Your task to perform on an android device: Open the map Image 0: 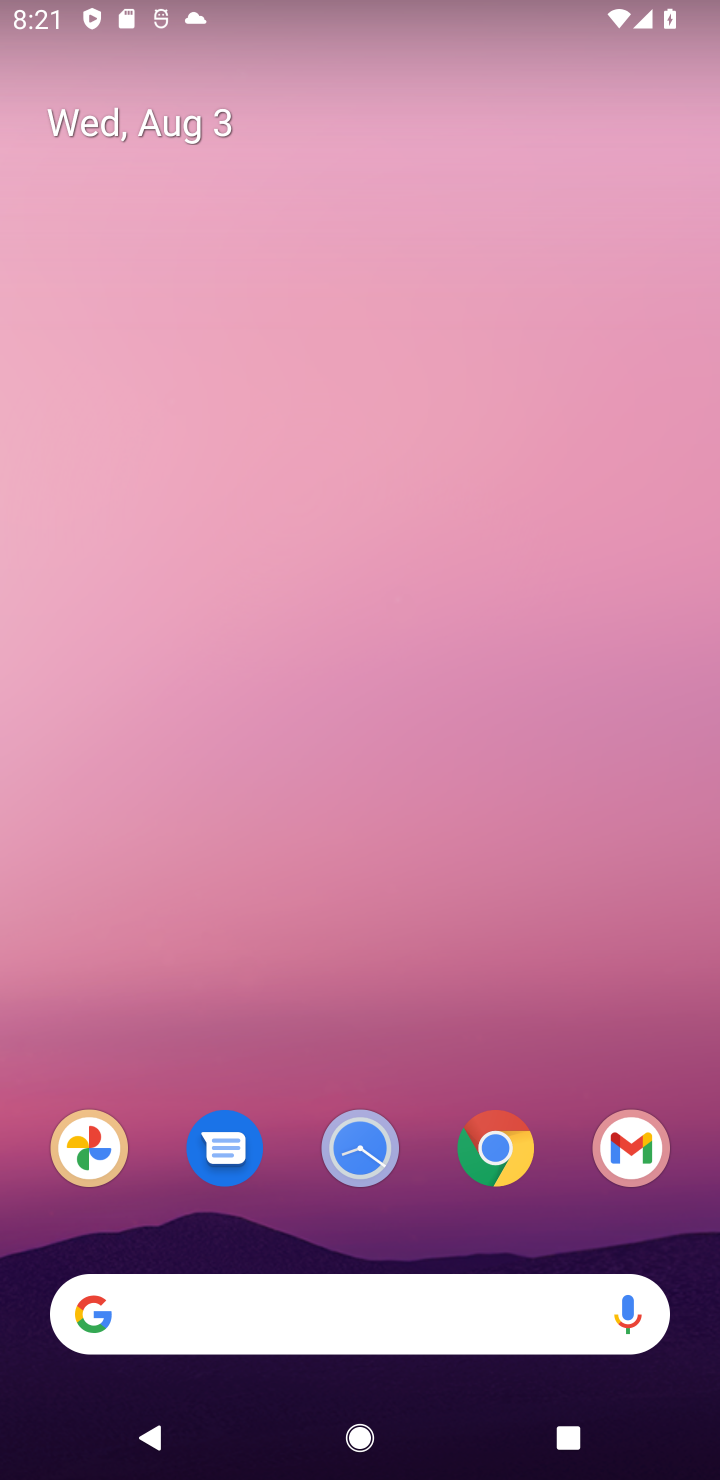
Step 0: drag from (408, 1007) to (479, 230)
Your task to perform on an android device: Open the map Image 1: 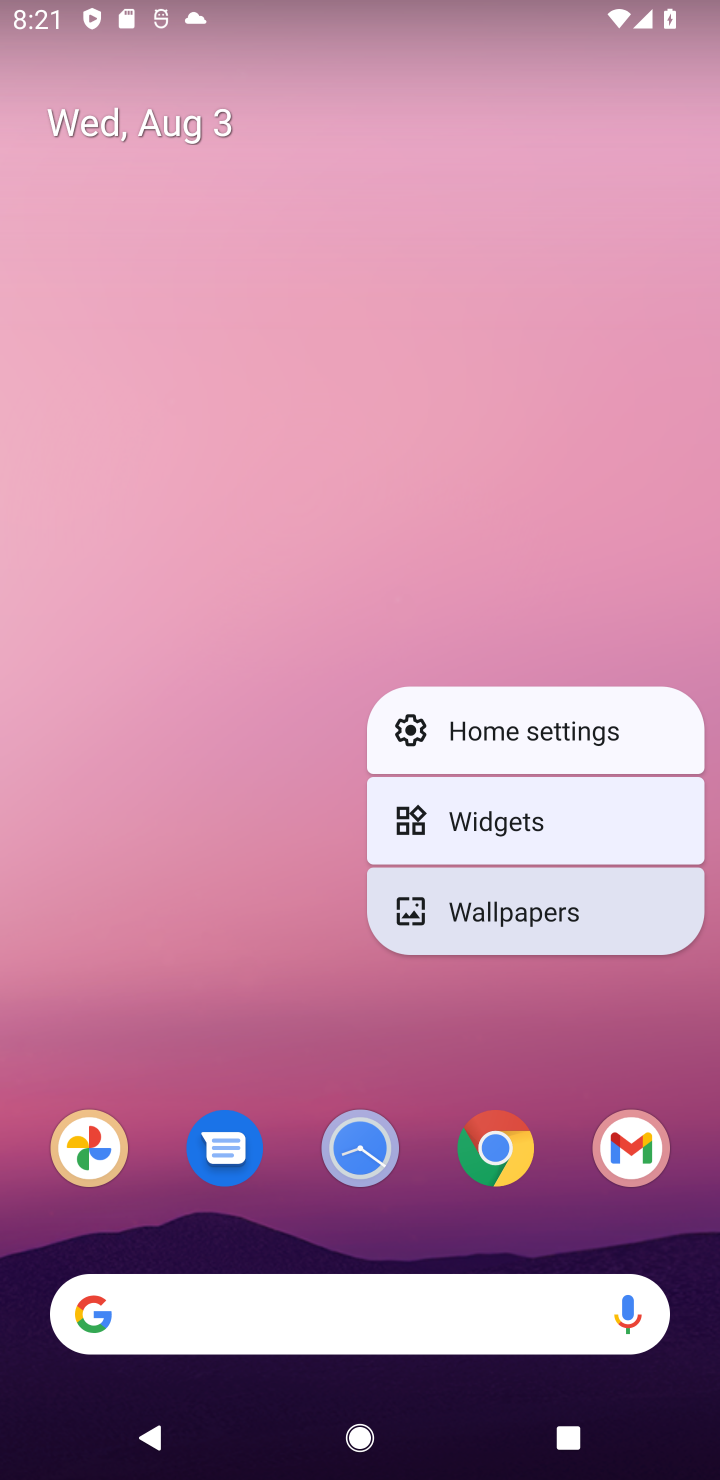
Step 1: click (199, 980)
Your task to perform on an android device: Open the map Image 2: 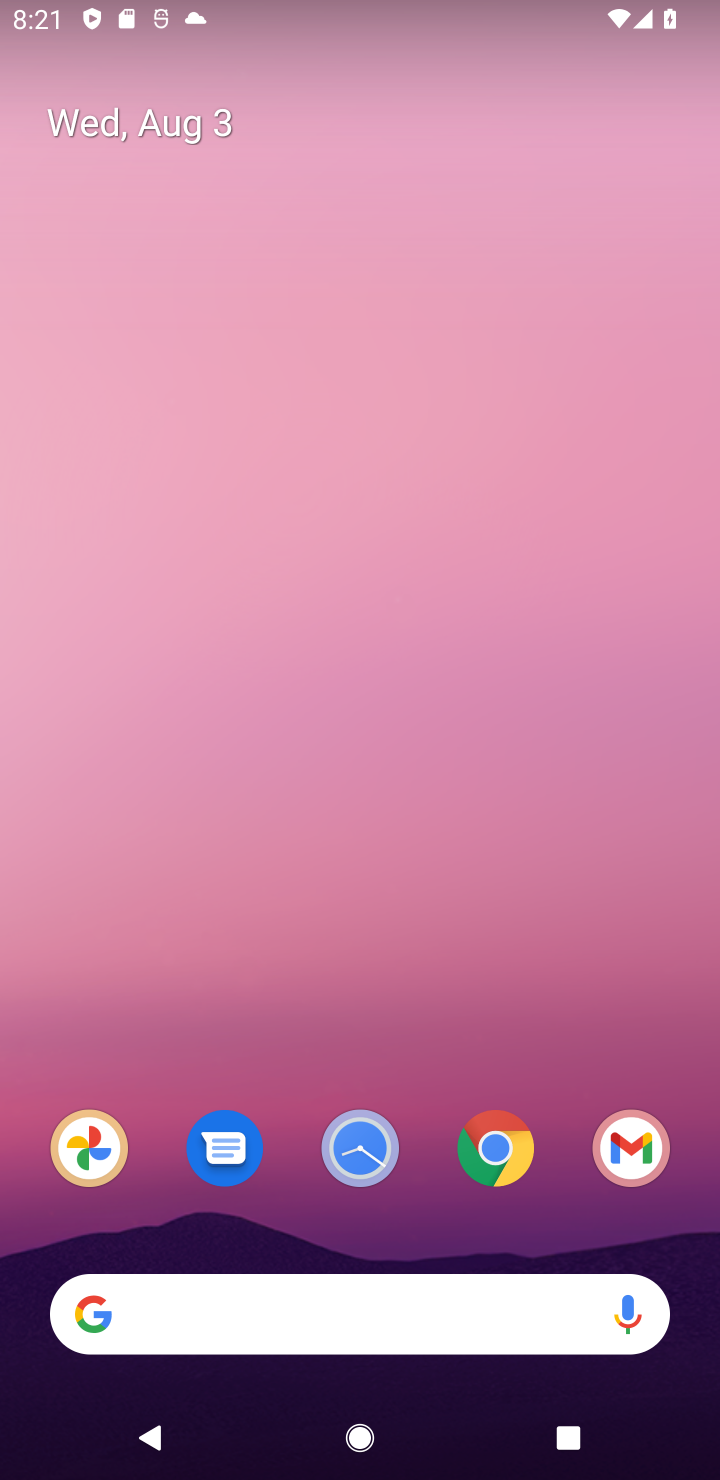
Step 2: drag from (380, 996) to (479, 184)
Your task to perform on an android device: Open the map Image 3: 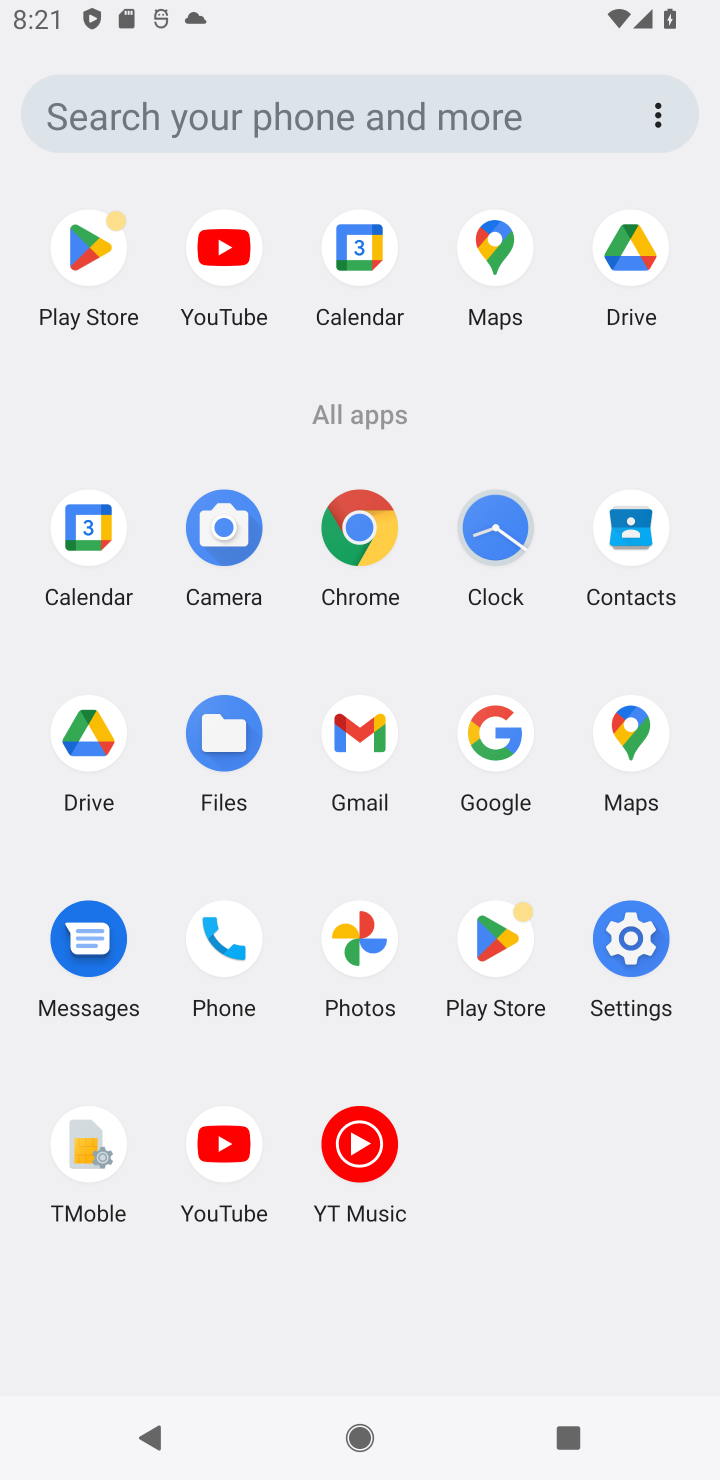
Step 3: click (503, 245)
Your task to perform on an android device: Open the map Image 4: 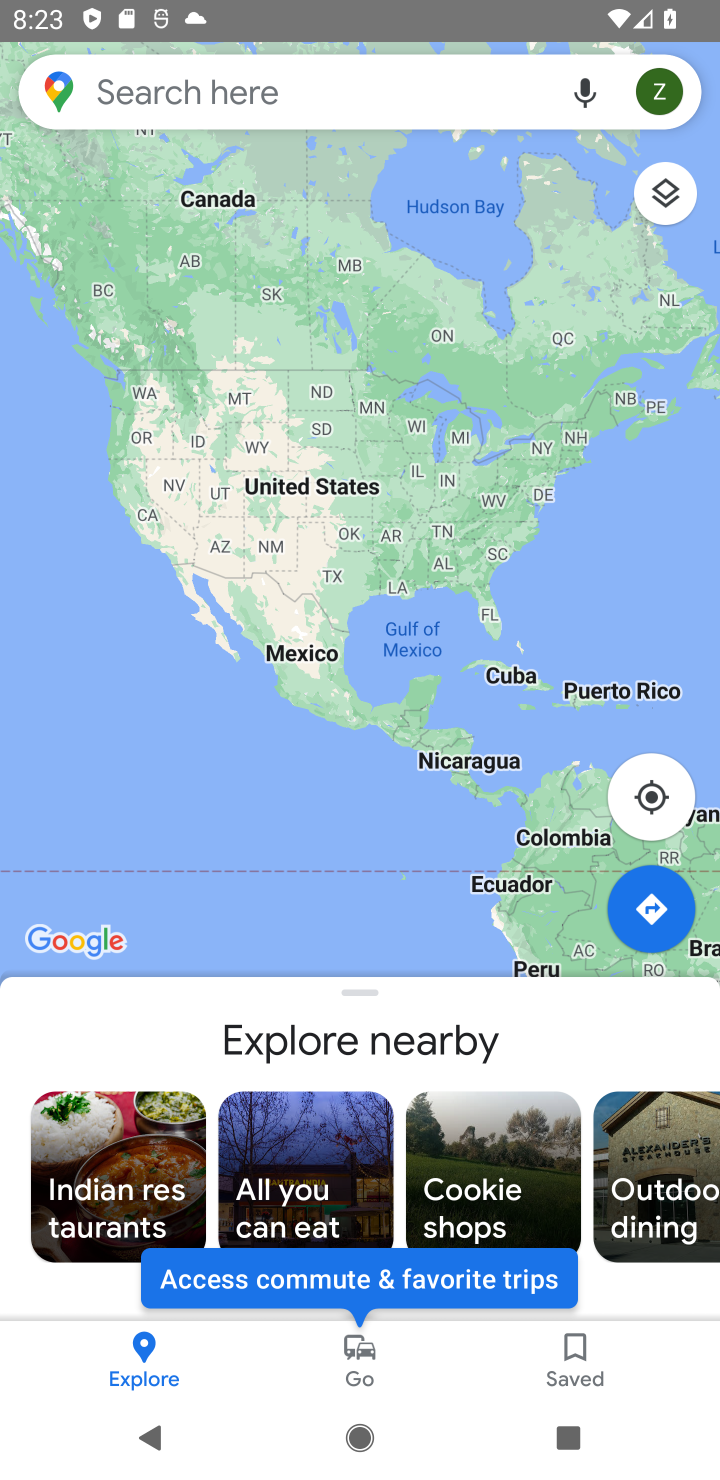
Step 4: task complete